Your task to perform on an android device: Go to notification settings Image 0: 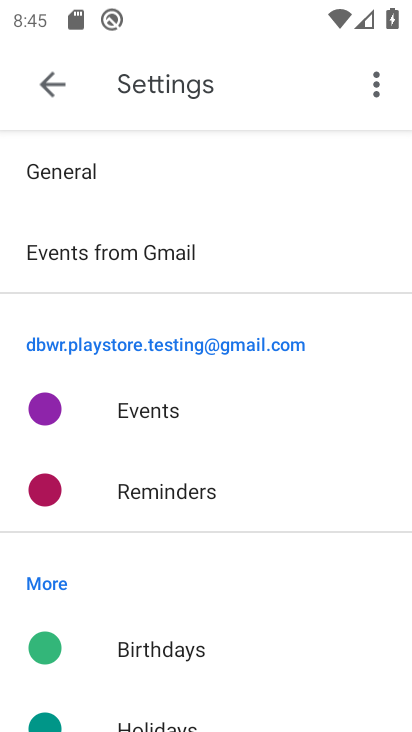
Step 0: press home button
Your task to perform on an android device: Go to notification settings Image 1: 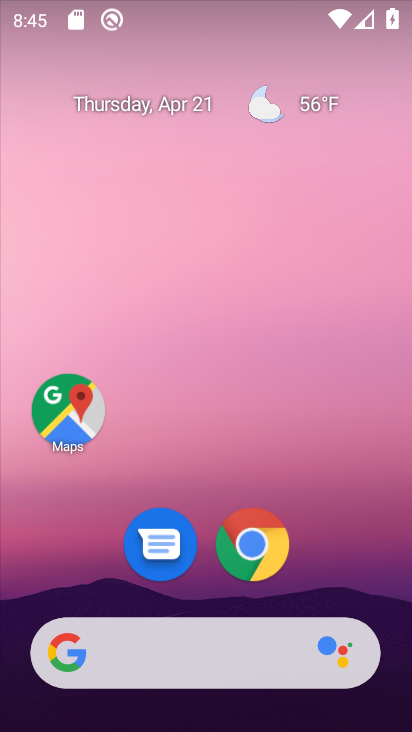
Step 1: drag from (204, 722) to (195, 134)
Your task to perform on an android device: Go to notification settings Image 2: 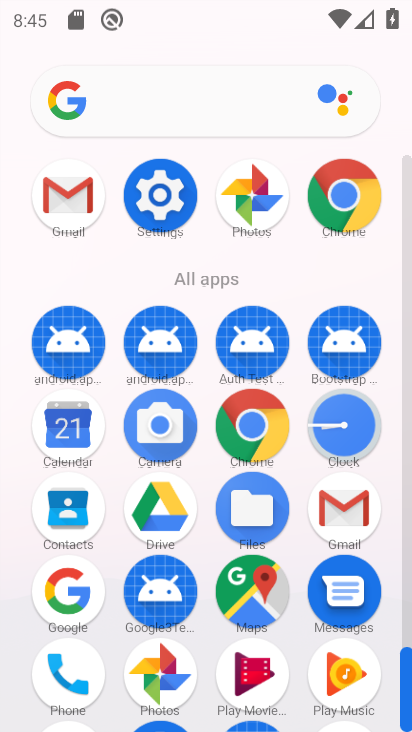
Step 2: click (168, 204)
Your task to perform on an android device: Go to notification settings Image 3: 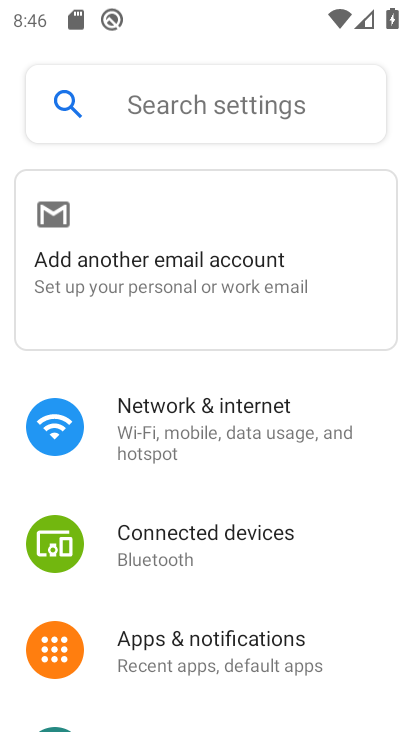
Step 3: click (212, 650)
Your task to perform on an android device: Go to notification settings Image 4: 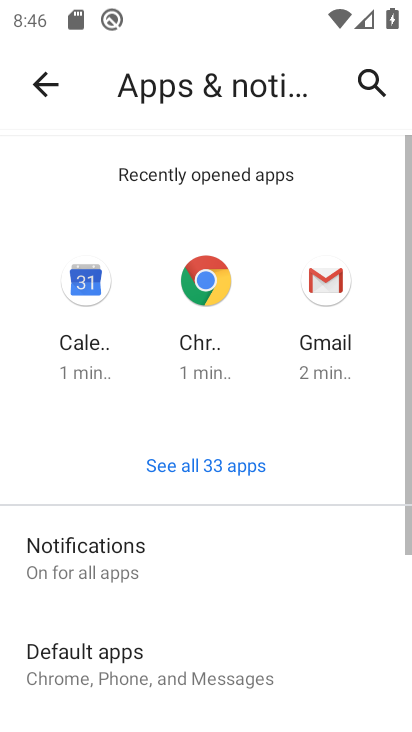
Step 4: click (78, 561)
Your task to perform on an android device: Go to notification settings Image 5: 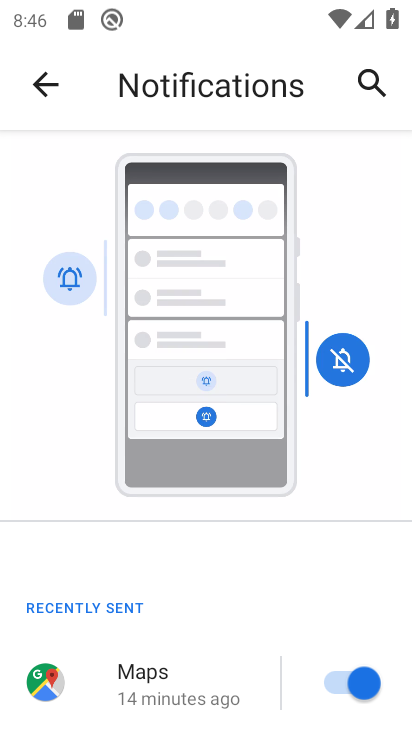
Step 5: task complete